Your task to perform on an android device: change alarm snooze length Image 0: 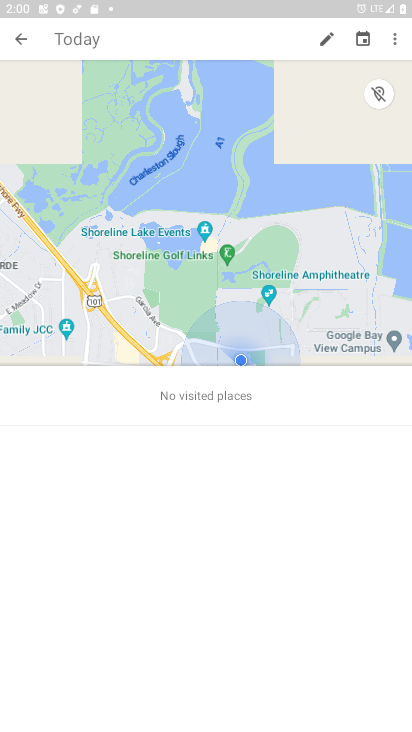
Step 0: press home button
Your task to perform on an android device: change alarm snooze length Image 1: 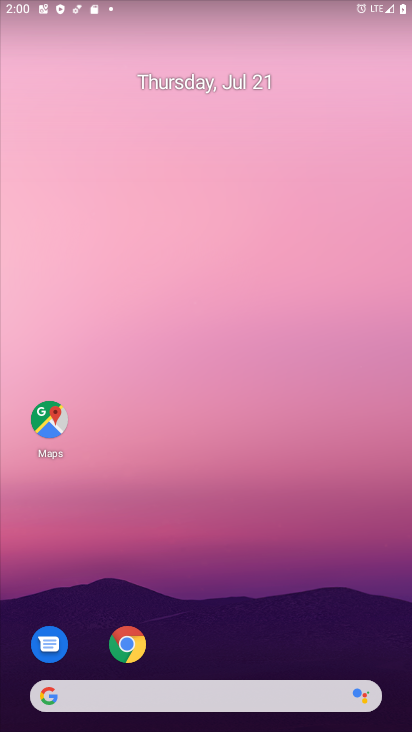
Step 1: drag from (137, 674) to (363, 4)
Your task to perform on an android device: change alarm snooze length Image 2: 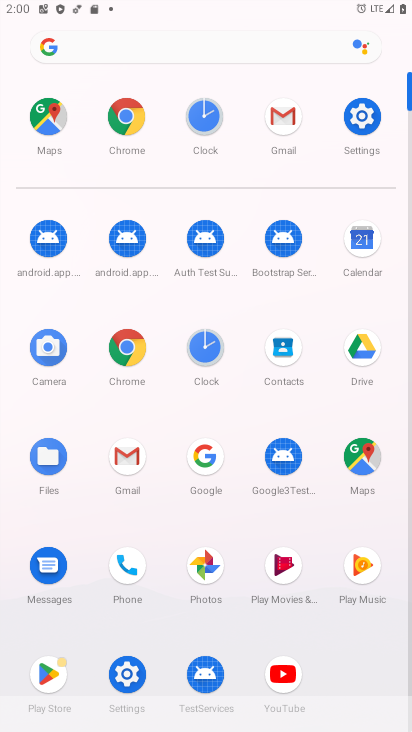
Step 2: click (209, 348)
Your task to perform on an android device: change alarm snooze length Image 3: 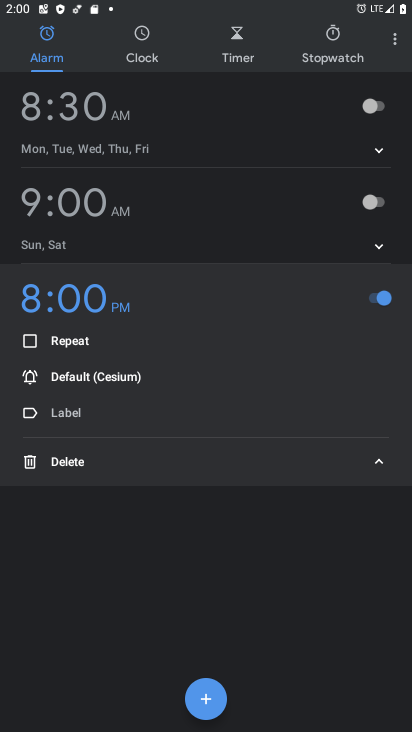
Step 3: click (398, 35)
Your task to perform on an android device: change alarm snooze length Image 4: 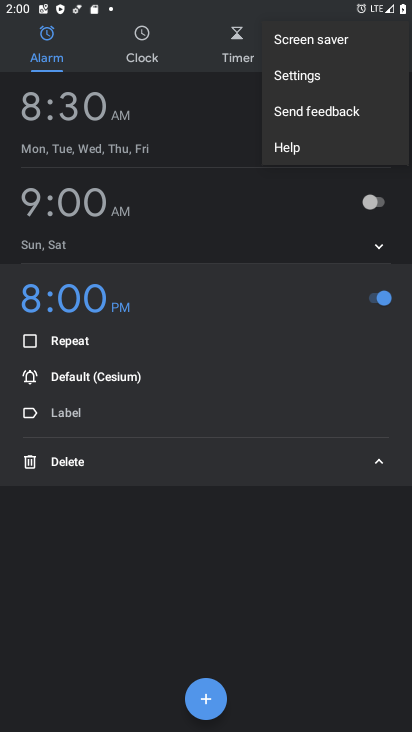
Step 4: click (333, 70)
Your task to perform on an android device: change alarm snooze length Image 5: 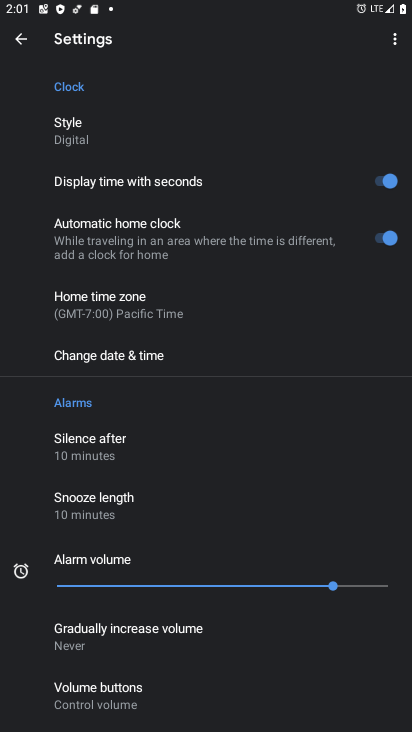
Step 5: click (122, 501)
Your task to perform on an android device: change alarm snooze length Image 6: 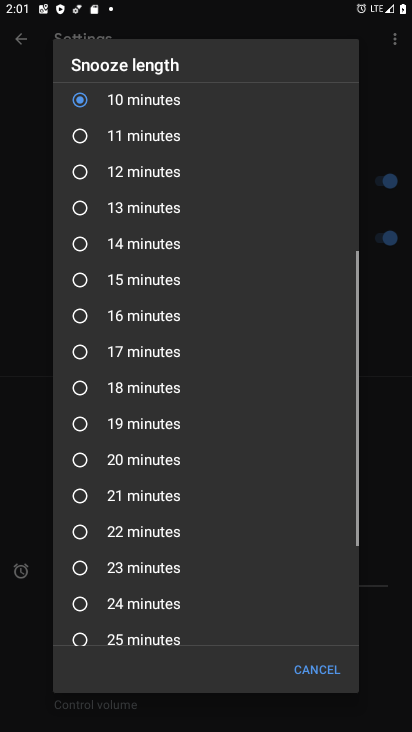
Step 6: click (134, 425)
Your task to perform on an android device: change alarm snooze length Image 7: 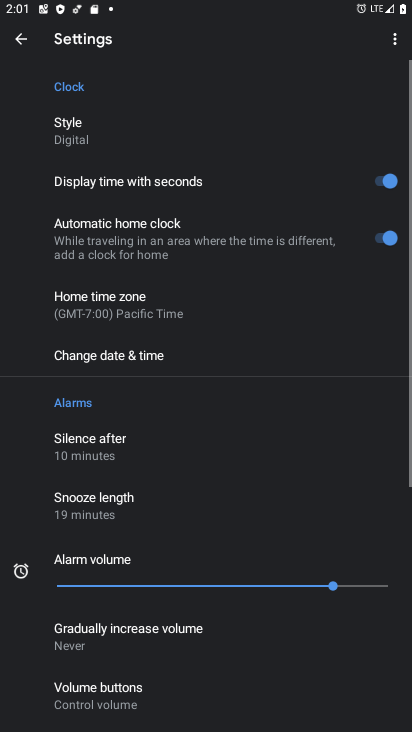
Step 7: task complete